Your task to perform on an android device: change alarm snooze length Image 0: 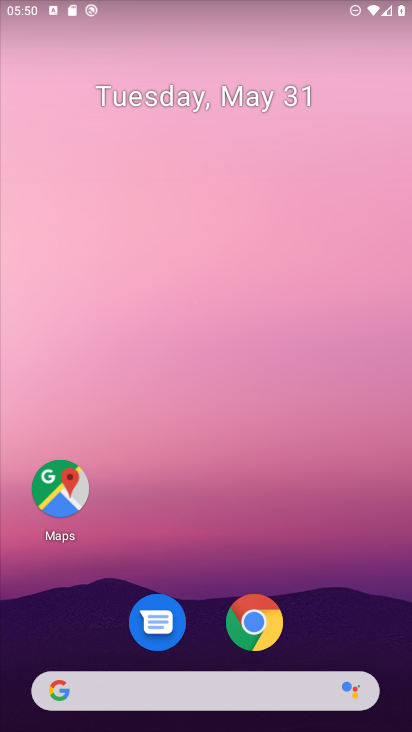
Step 0: drag from (277, 670) to (105, 0)
Your task to perform on an android device: change alarm snooze length Image 1: 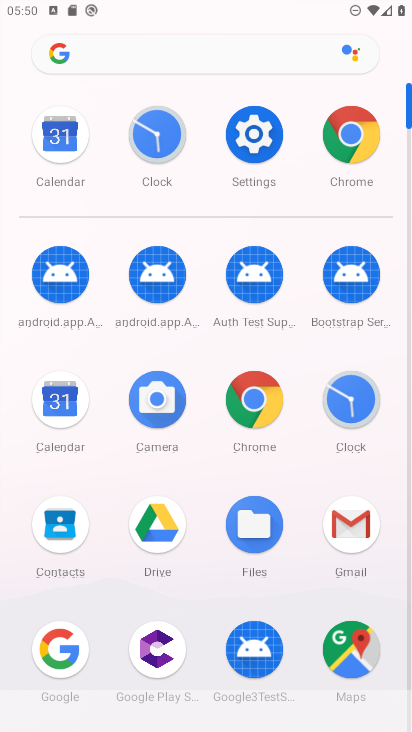
Step 1: click (353, 401)
Your task to perform on an android device: change alarm snooze length Image 2: 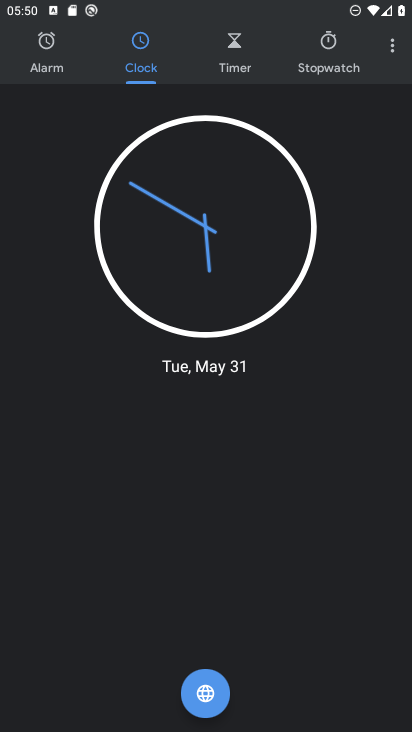
Step 2: drag from (388, 49) to (266, 211)
Your task to perform on an android device: change alarm snooze length Image 3: 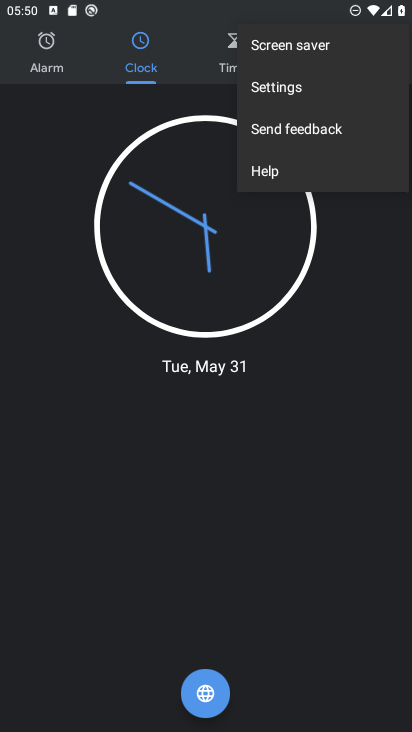
Step 3: drag from (276, 148) to (287, 87)
Your task to perform on an android device: change alarm snooze length Image 4: 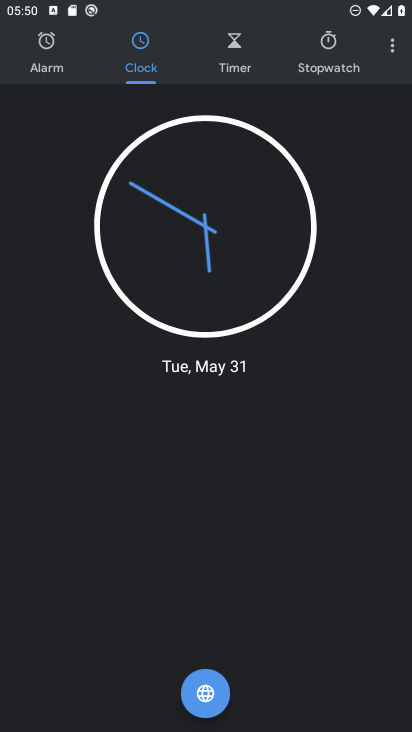
Step 4: click (399, 39)
Your task to perform on an android device: change alarm snooze length Image 5: 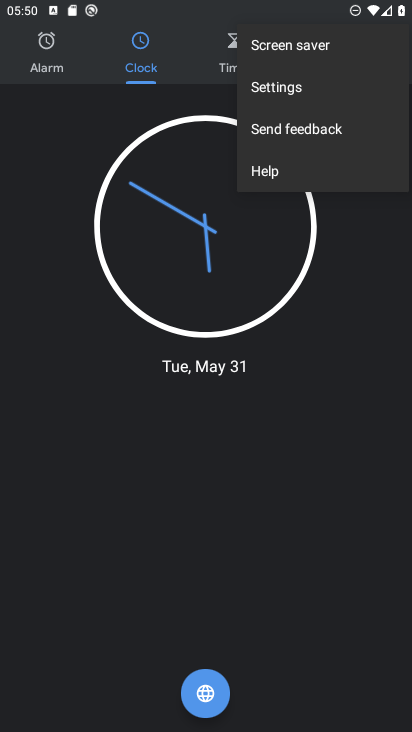
Step 5: click (325, 92)
Your task to perform on an android device: change alarm snooze length Image 6: 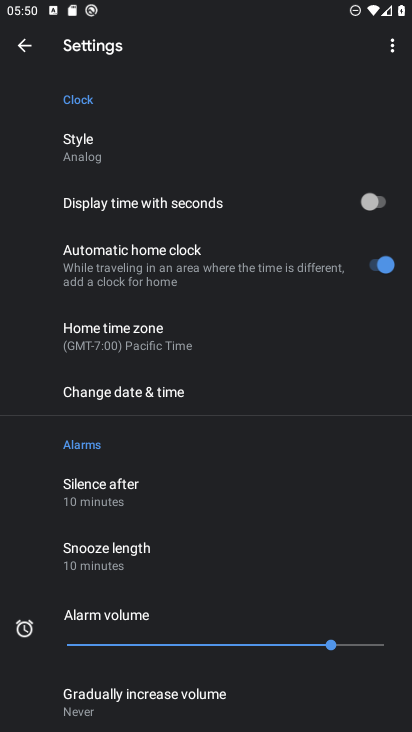
Step 6: click (158, 560)
Your task to perform on an android device: change alarm snooze length Image 7: 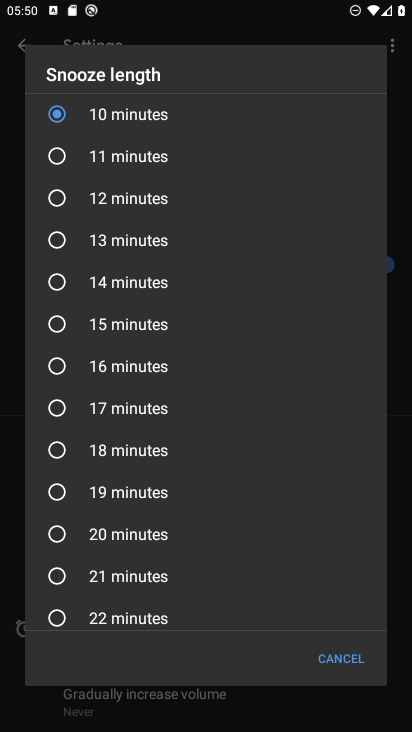
Step 7: click (134, 170)
Your task to perform on an android device: change alarm snooze length Image 8: 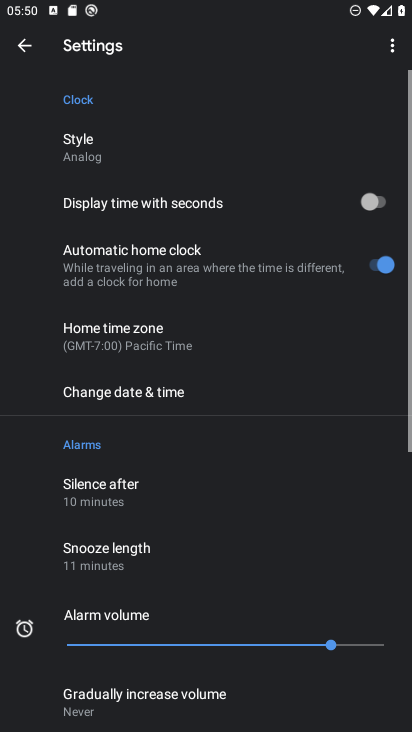
Step 8: task complete